Your task to perform on an android device: install app "Lyft - Rideshare, Bikes, Scooters & Transit" Image 0: 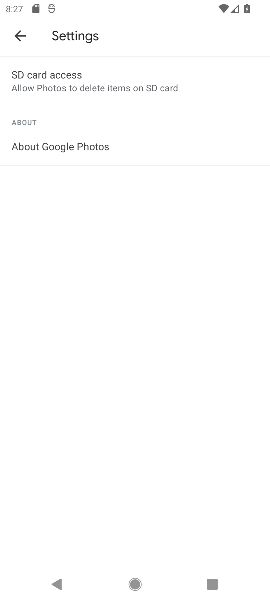
Step 0: press home button
Your task to perform on an android device: install app "Lyft - Rideshare, Bikes, Scooters & Transit" Image 1: 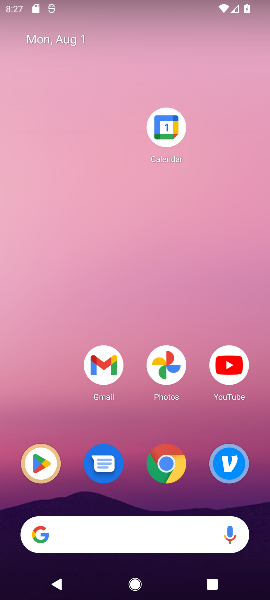
Step 1: drag from (113, 502) to (192, 69)
Your task to perform on an android device: install app "Lyft - Rideshare, Bikes, Scooters & Transit" Image 2: 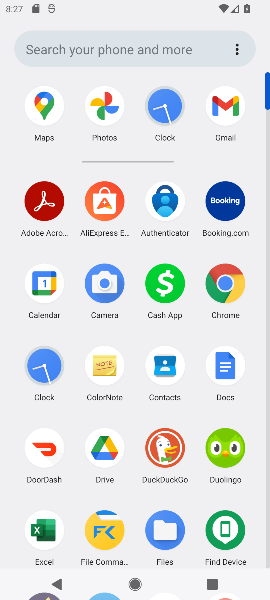
Step 2: drag from (138, 498) to (166, 238)
Your task to perform on an android device: install app "Lyft - Rideshare, Bikes, Scooters & Transit" Image 3: 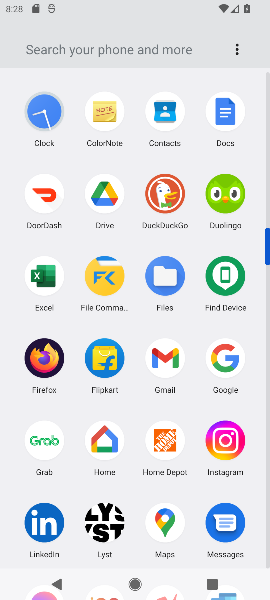
Step 3: click (121, 535)
Your task to perform on an android device: install app "Lyft - Rideshare, Bikes, Scooters & Transit" Image 4: 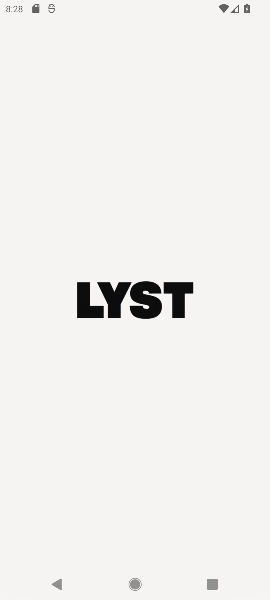
Step 4: task complete